Your task to perform on an android device: toggle improve location accuracy Image 0: 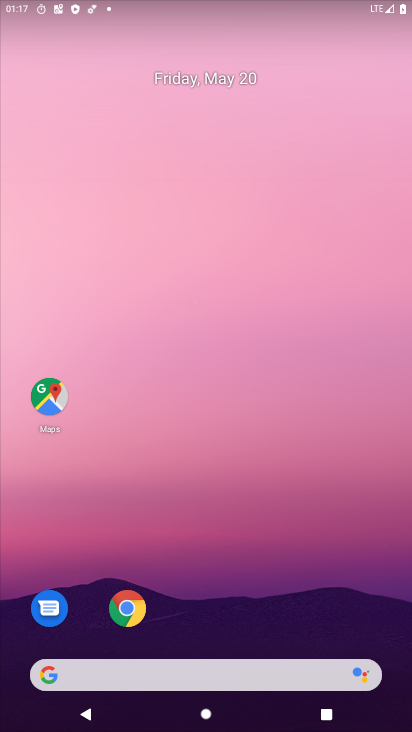
Step 0: drag from (353, 589) to (328, 177)
Your task to perform on an android device: toggle improve location accuracy Image 1: 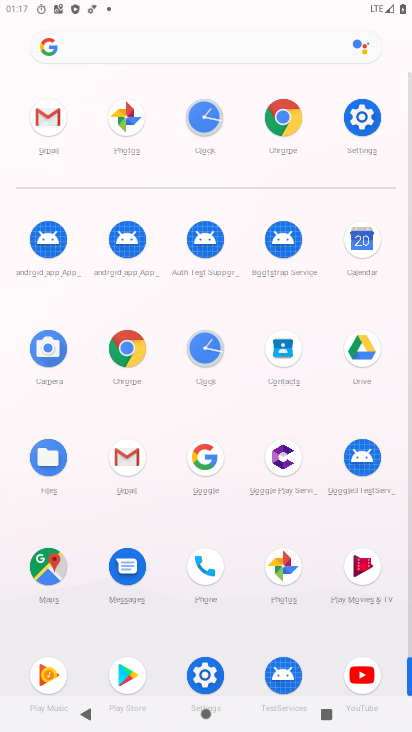
Step 1: click (208, 675)
Your task to perform on an android device: toggle improve location accuracy Image 2: 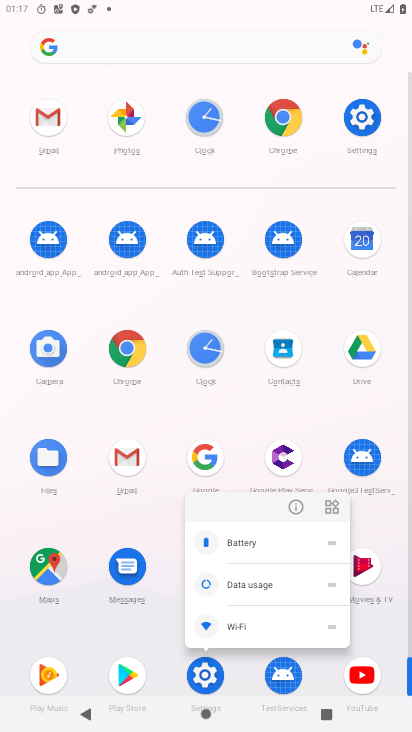
Step 2: click (197, 674)
Your task to perform on an android device: toggle improve location accuracy Image 3: 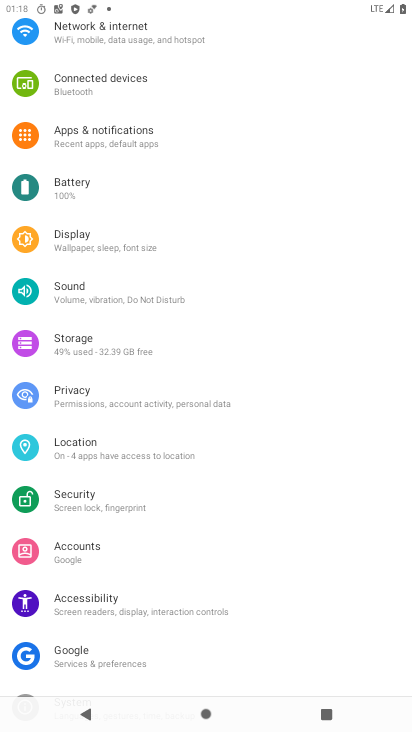
Step 3: click (86, 439)
Your task to perform on an android device: toggle improve location accuracy Image 4: 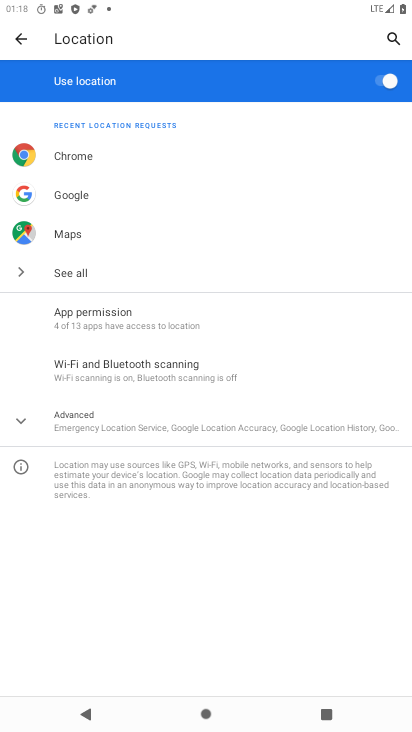
Step 4: click (237, 426)
Your task to perform on an android device: toggle improve location accuracy Image 5: 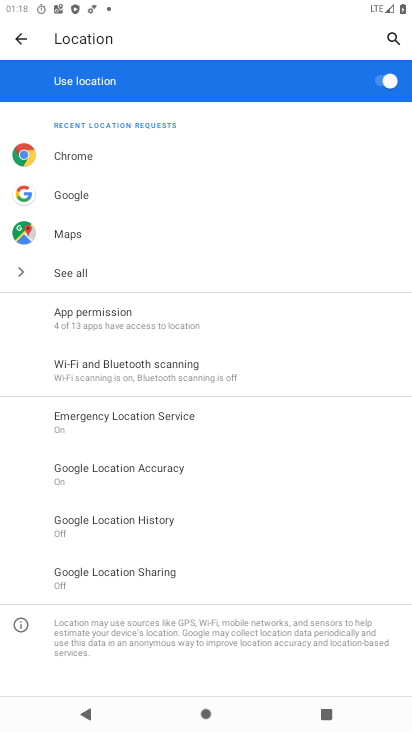
Step 5: click (127, 468)
Your task to perform on an android device: toggle improve location accuracy Image 6: 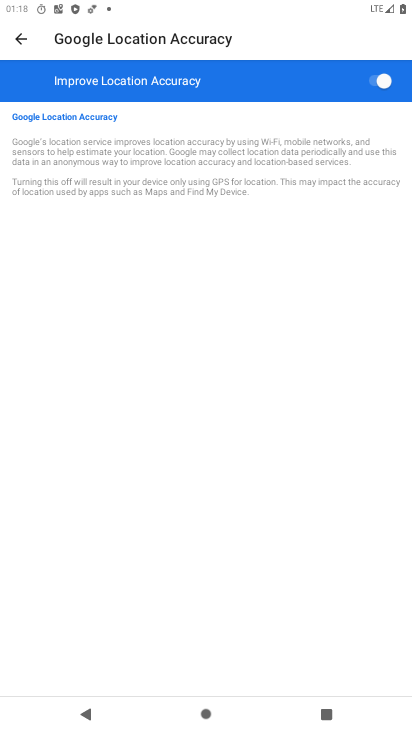
Step 6: click (375, 85)
Your task to perform on an android device: toggle improve location accuracy Image 7: 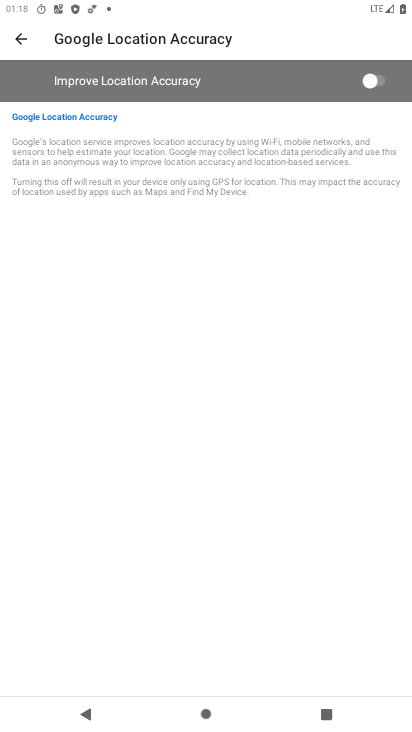
Step 7: task complete